Your task to perform on an android device: turn off airplane mode Image 0: 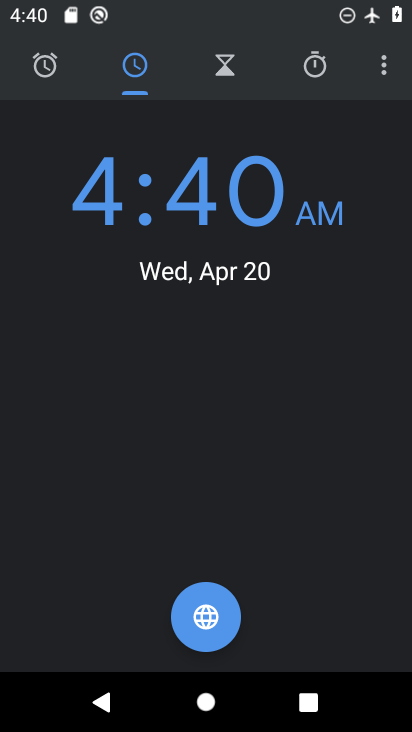
Step 0: press home button
Your task to perform on an android device: turn off airplane mode Image 1: 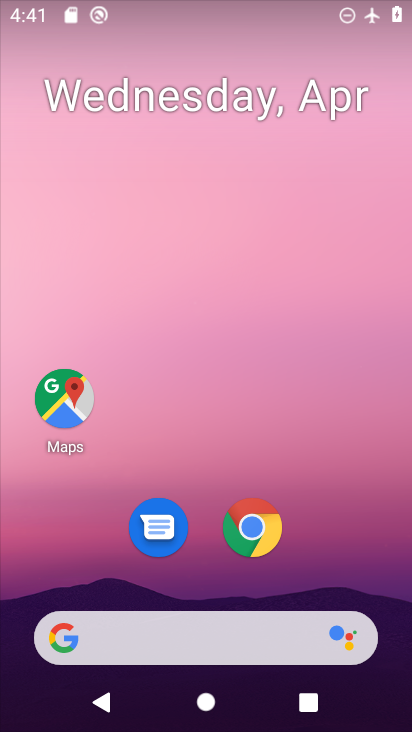
Step 1: drag from (376, 559) to (351, 15)
Your task to perform on an android device: turn off airplane mode Image 2: 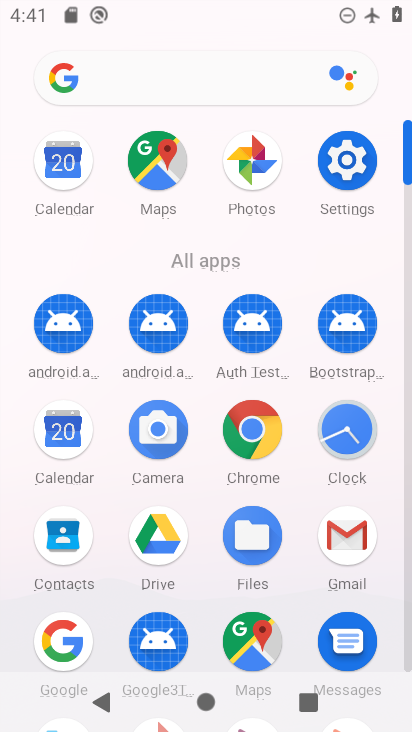
Step 2: click (343, 164)
Your task to perform on an android device: turn off airplane mode Image 3: 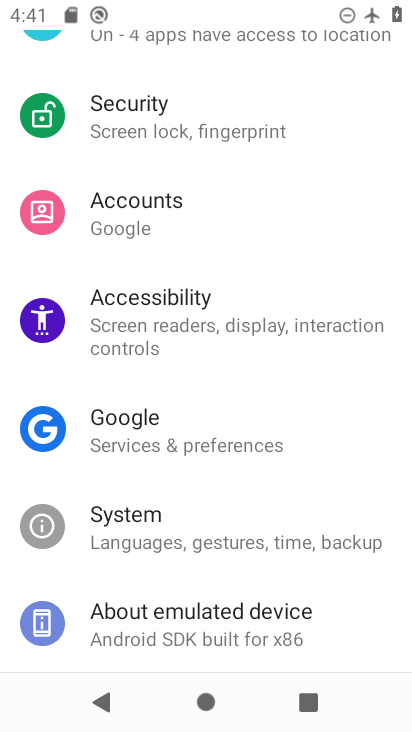
Step 3: drag from (310, 202) to (315, 493)
Your task to perform on an android device: turn off airplane mode Image 4: 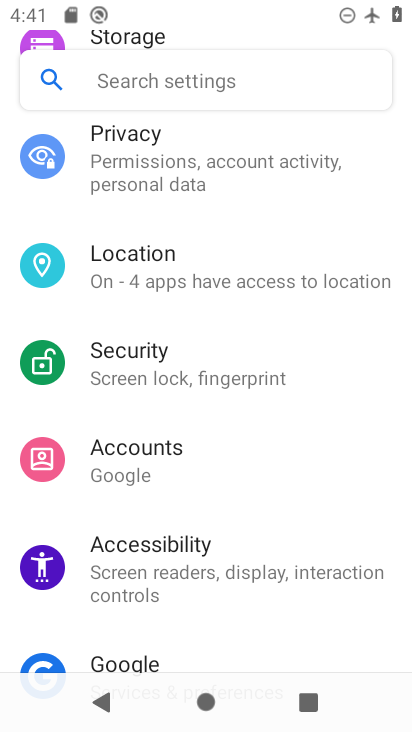
Step 4: drag from (256, 201) to (271, 569)
Your task to perform on an android device: turn off airplane mode Image 5: 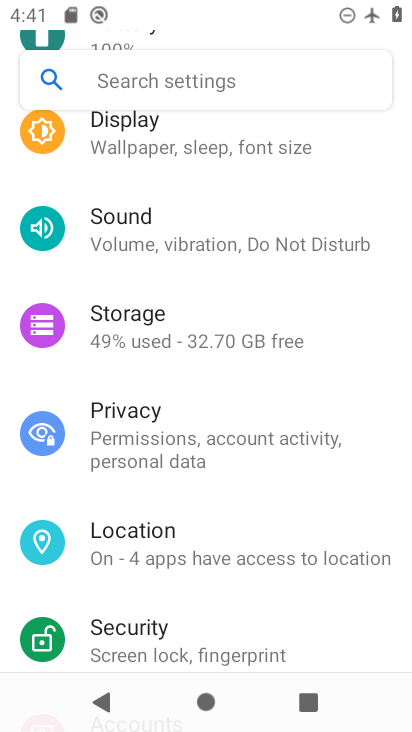
Step 5: drag from (321, 192) to (323, 576)
Your task to perform on an android device: turn off airplane mode Image 6: 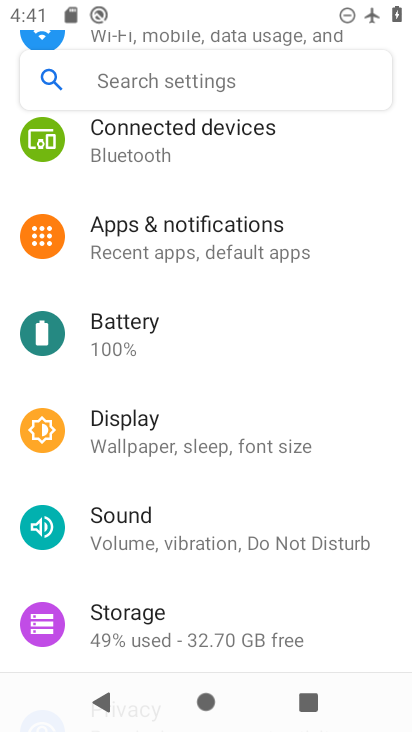
Step 6: drag from (315, 211) to (314, 606)
Your task to perform on an android device: turn off airplane mode Image 7: 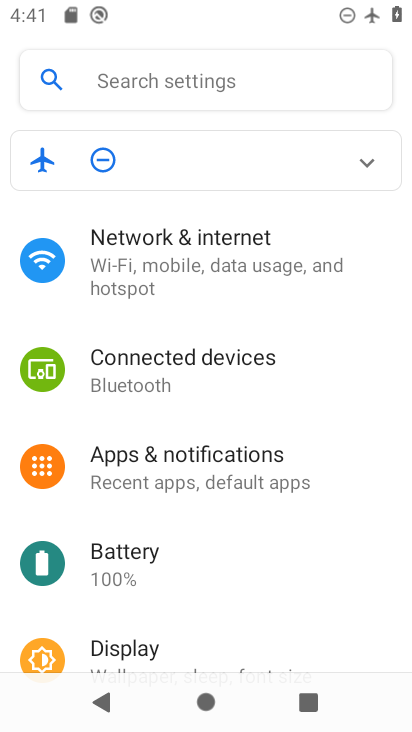
Step 7: click (149, 266)
Your task to perform on an android device: turn off airplane mode Image 8: 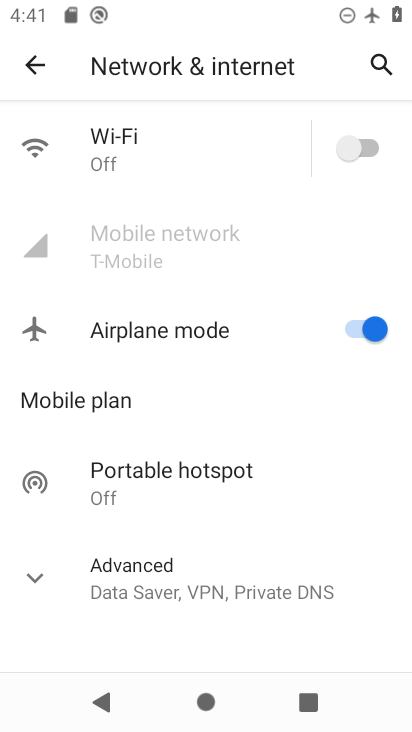
Step 8: click (369, 330)
Your task to perform on an android device: turn off airplane mode Image 9: 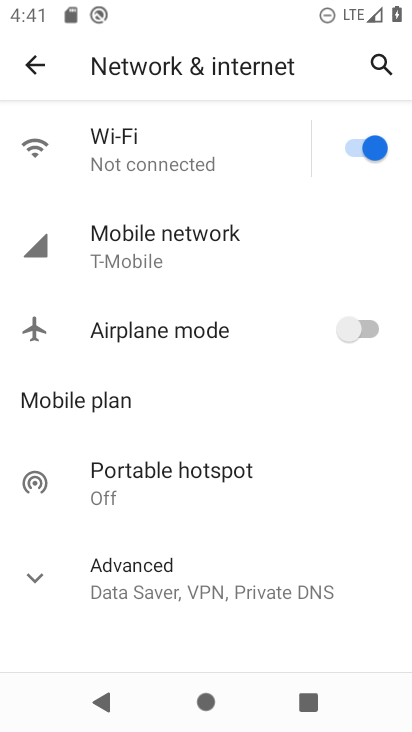
Step 9: task complete